Your task to perform on an android device: Go to ESPN.com Image 0: 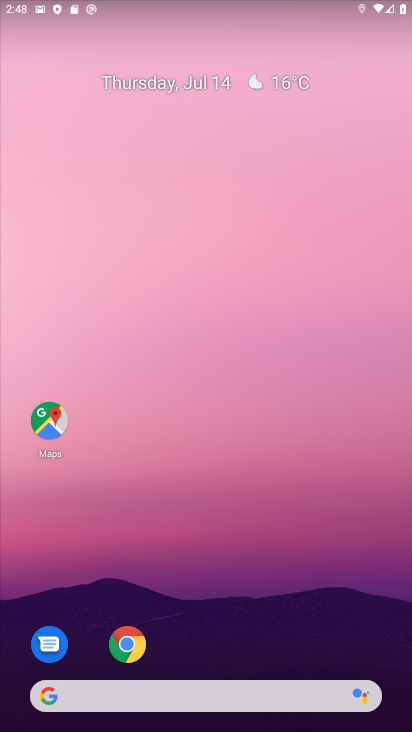
Step 0: click (125, 647)
Your task to perform on an android device: Go to ESPN.com Image 1: 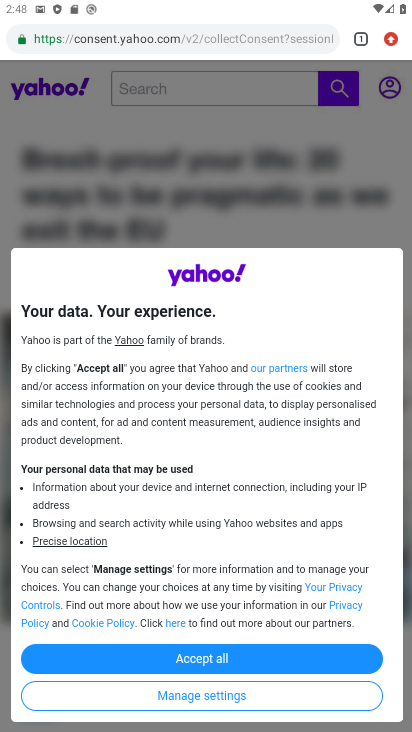
Step 1: click (354, 43)
Your task to perform on an android device: Go to ESPN.com Image 2: 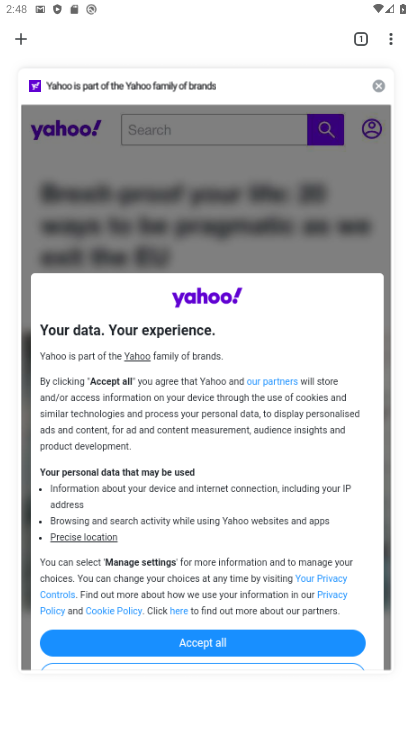
Step 2: click (24, 30)
Your task to perform on an android device: Go to ESPN.com Image 3: 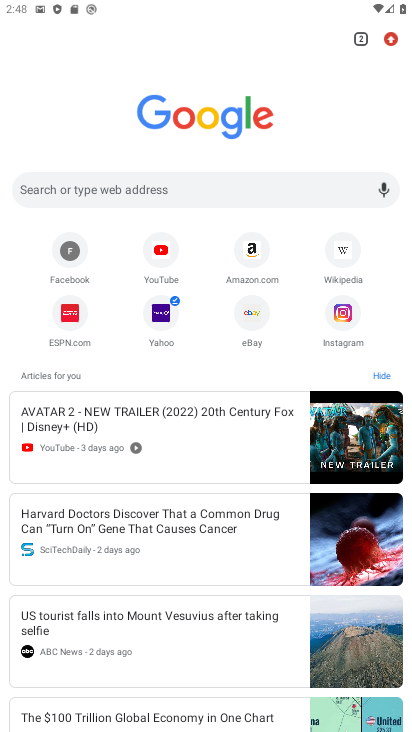
Step 3: click (78, 329)
Your task to perform on an android device: Go to ESPN.com Image 4: 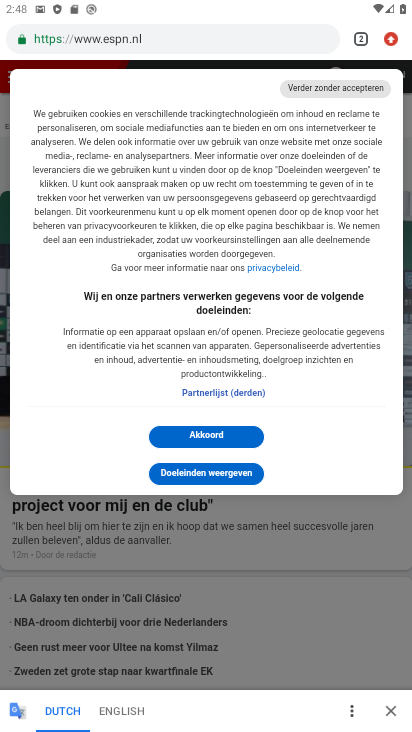
Step 4: task complete